Your task to perform on an android device: change timer sound Image 0: 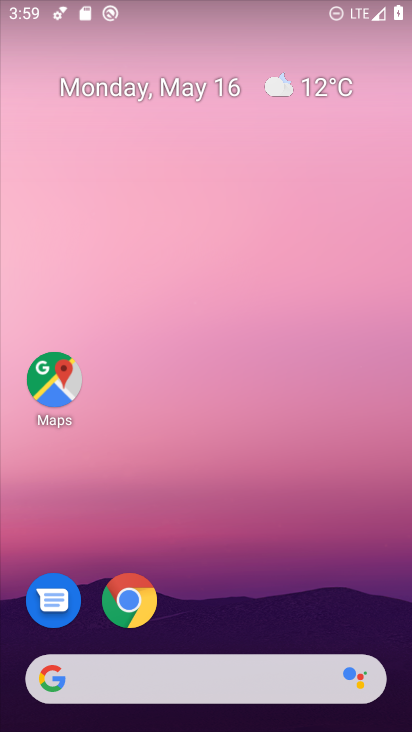
Step 0: drag from (302, 607) to (286, 54)
Your task to perform on an android device: change timer sound Image 1: 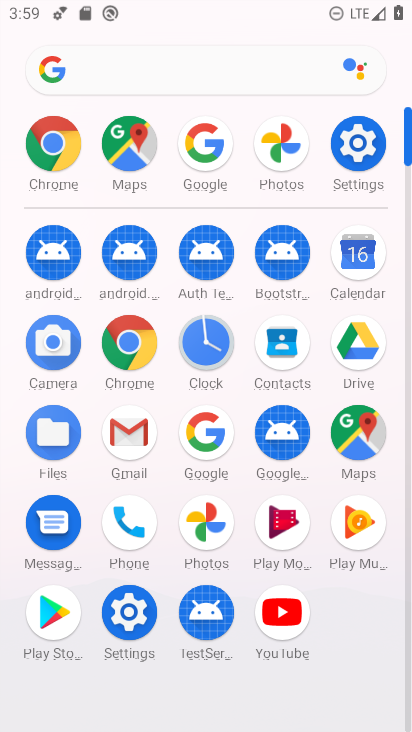
Step 1: click (356, 135)
Your task to perform on an android device: change timer sound Image 2: 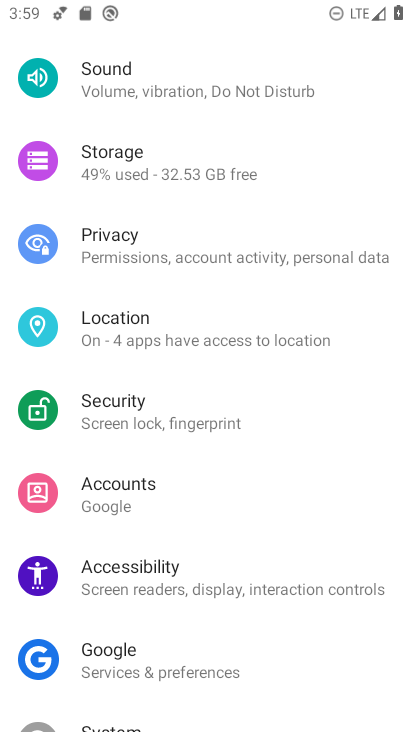
Step 2: press home button
Your task to perform on an android device: change timer sound Image 3: 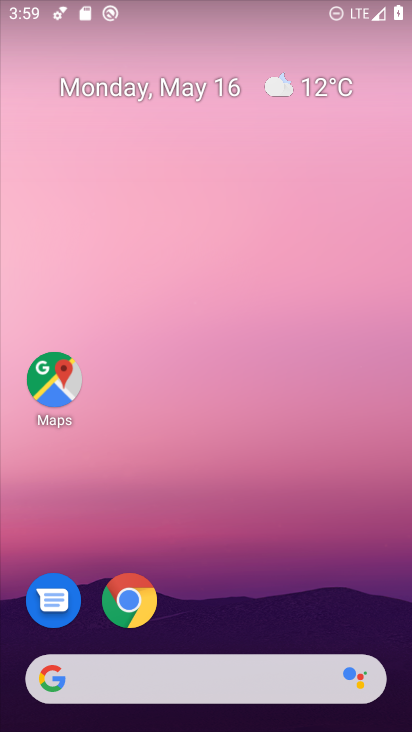
Step 3: drag from (282, 562) to (279, 7)
Your task to perform on an android device: change timer sound Image 4: 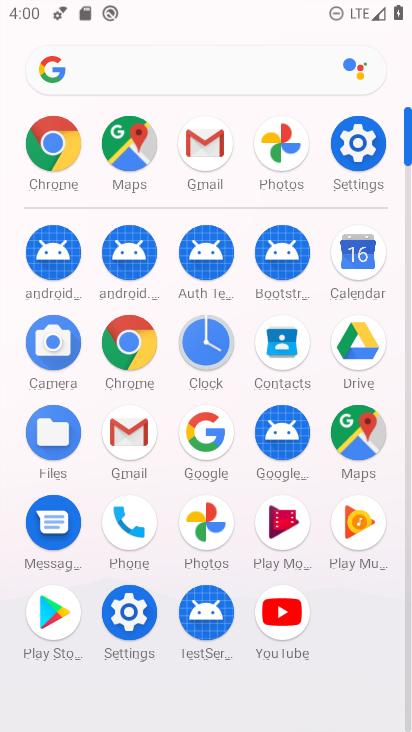
Step 4: click (197, 338)
Your task to perform on an android device: change timer sound Image 5: 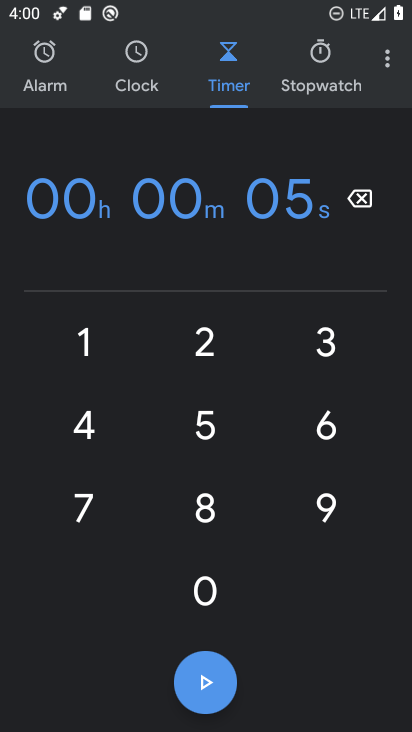
Step 5: drag from (393, 51) to (298, 134)
Your task to perform on an android device: change timer sound Image 6: 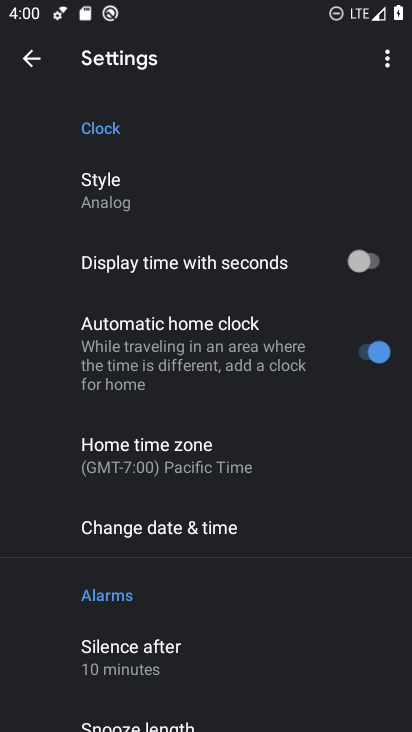
Step 6: drag from (222, 600) to (185, 55)
Your task to perform on an android device: change timer sound Image 7: 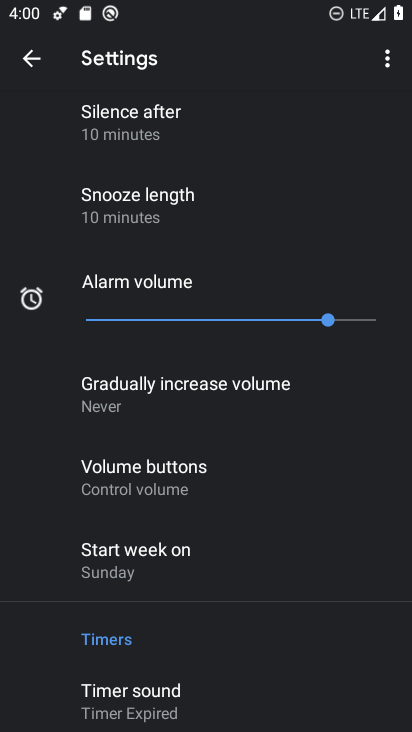
Step 7: click (142, 683)
Your task to perform on an android device: change timer sound Image 8: 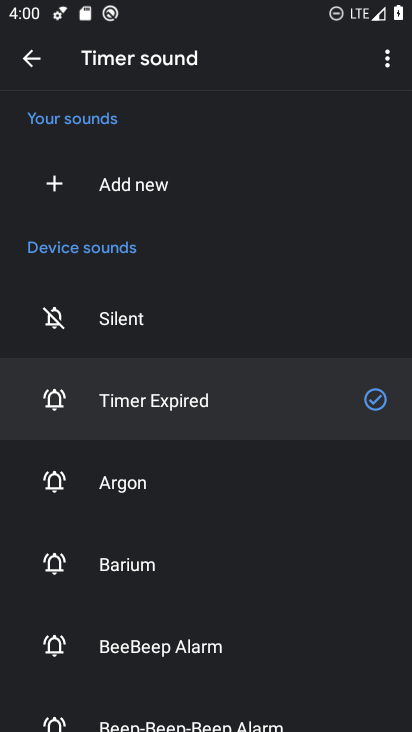
Step 8: click (122, 495)
Your task to perform on an android device: change timer sound Image 9: 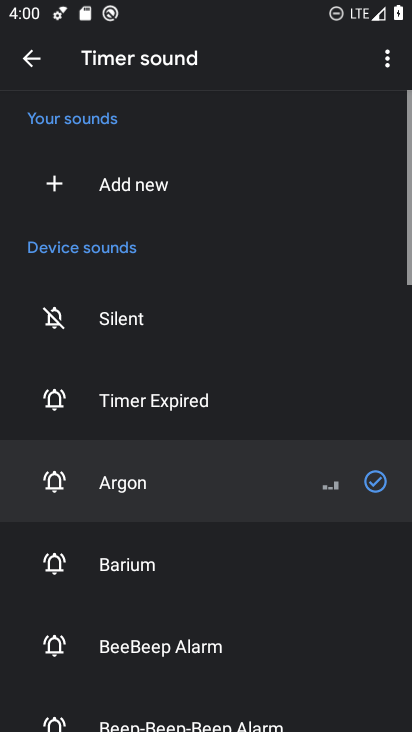
Step 9: task complete